Your task to perform on an android device: visit the assistant section in the google photos Image 0: 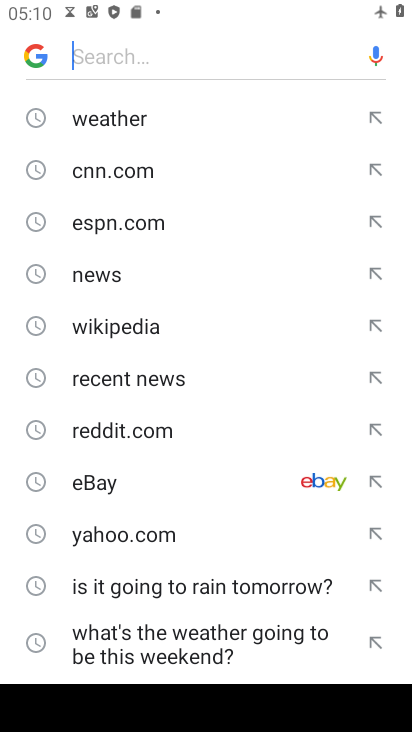
Step 0: press back button
Your task to perform on an android device: visit the assistant section in the google photos Image 1: 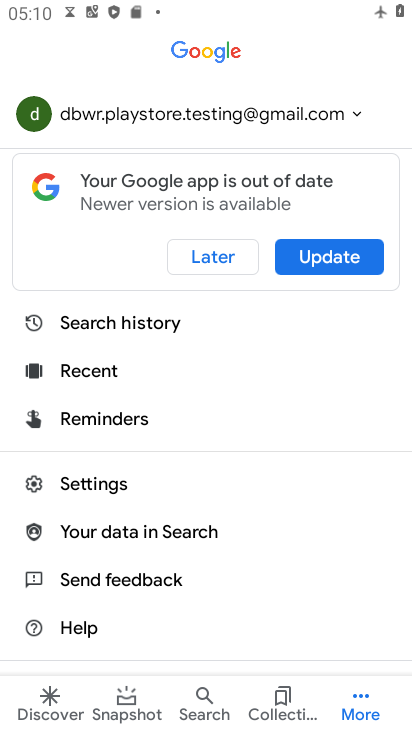
Step 1: press back button
Your task to perform on an android device: visit the assistant section in the google photos Image 2: 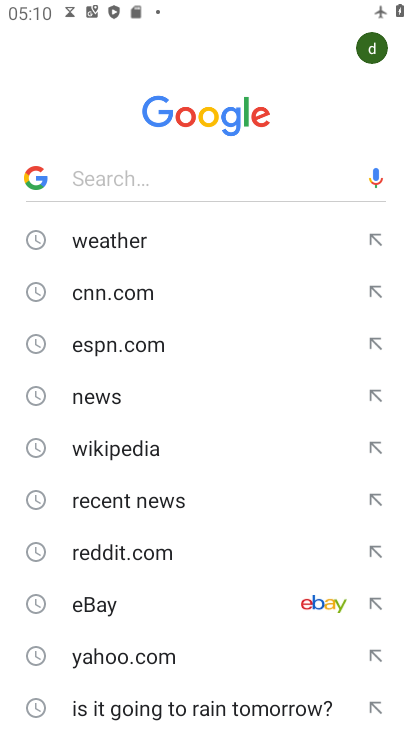
Step 2: press back button
Your task to perform on an android device: visit the assistant section in the google photos Image 3: 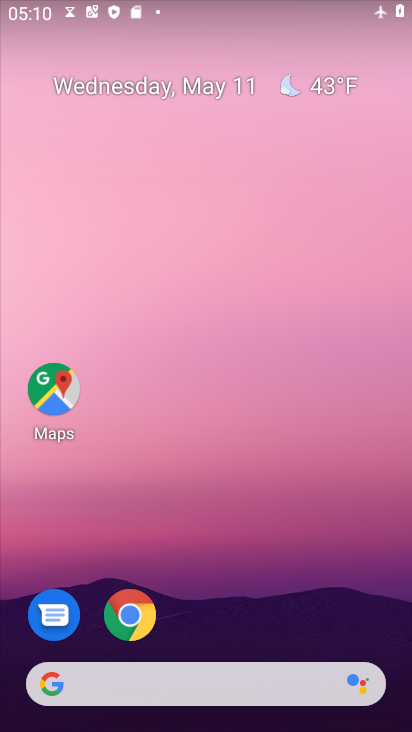
Step 3: drag from (282, 565) to (229, 62)
Your task to perform on an android device: visit the assistant section in the google photos Image 4: 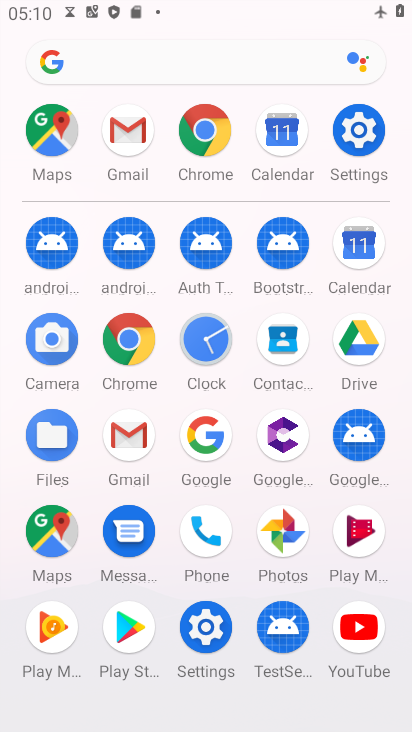
Step 4: drag from (19, 517) to (0, 251)
Your task to perform on an android device: visit the assistant section in the google photos Image 5: 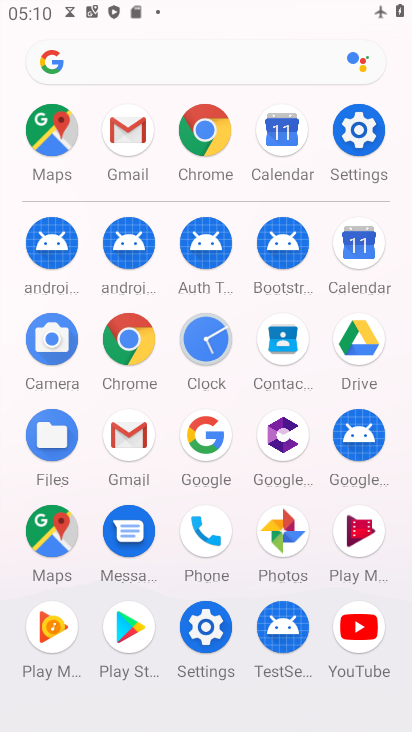
Step 5: click (284, 528)
Your task to perform on an android device: visit the assistant section in the google photos Image 6: 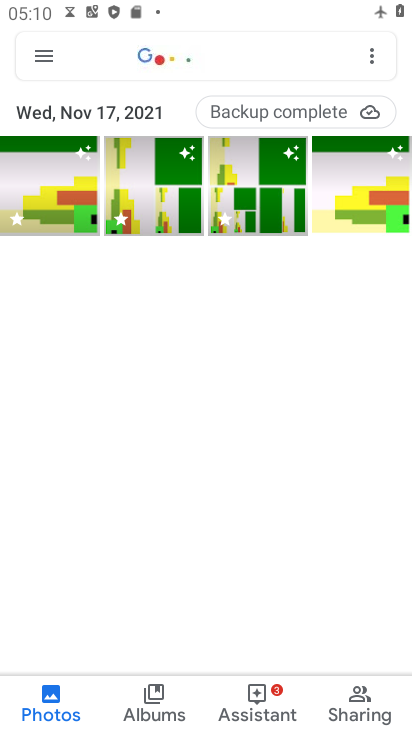
Step 6: click (43, 49)
Your task to perform on an android device: visit the assistant section in the google photos Image 7: 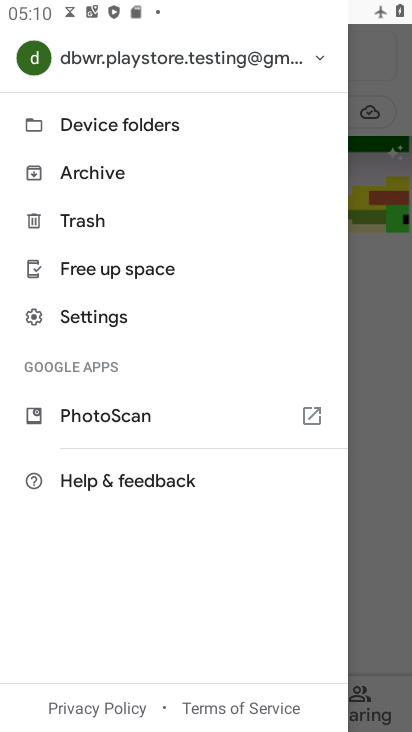
Step 7: click (366, 321)
Your task to perform on an android device: visit the assistant section in the google photos Image 8: 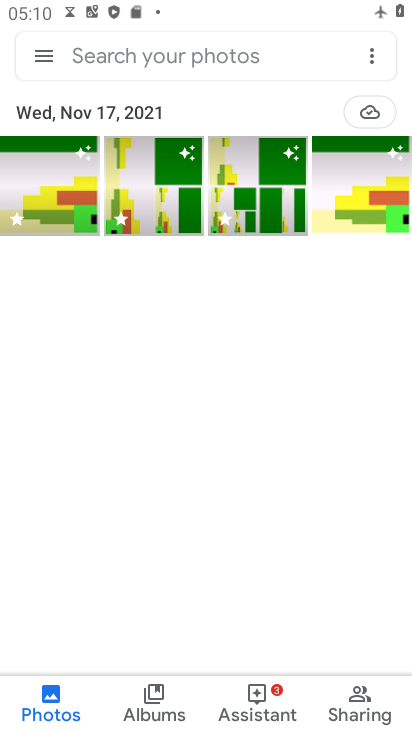
Step 8: click (260, 686)
Your task to perform on an android device: visit the assistant section in the google photos Image 9: 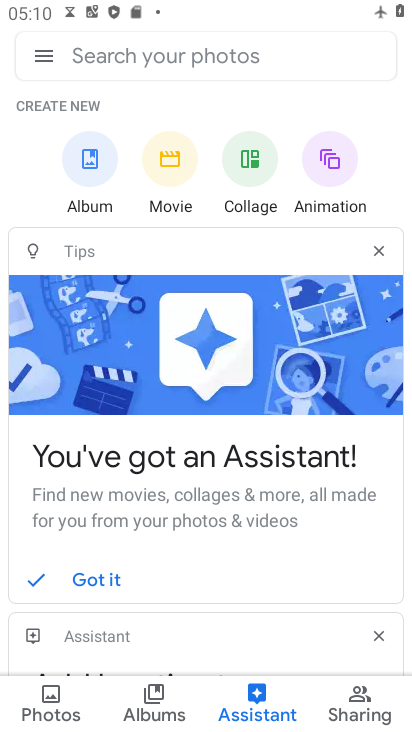
Step 9: task complete